Your task to perform on an android device: delete the emails in spam in the gmail app Image 0: 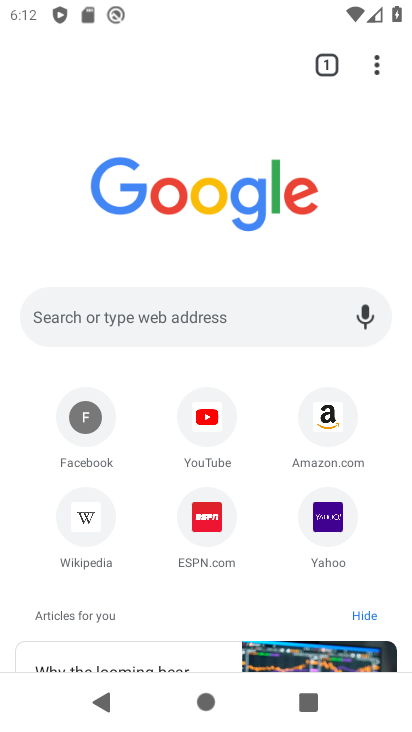
Step 0: press home button
Your task to perform on an android device: delete the emails in spam in the gmail app Image 1: 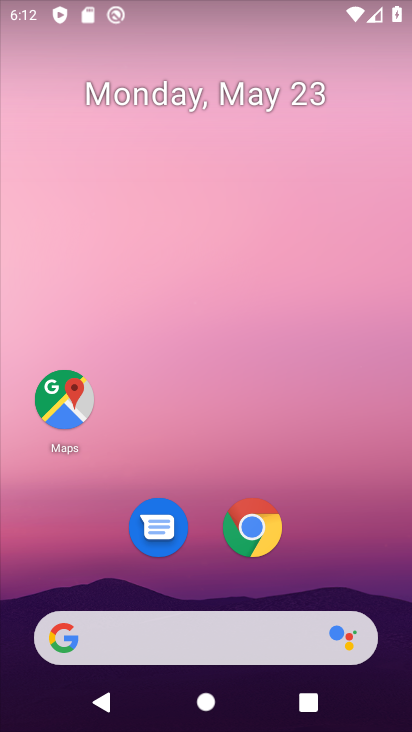
Step 1: drag from (305, 557) to (313, 105)
Your task to perform on an android device: delete the emails in spam in the gmail app Image 2: 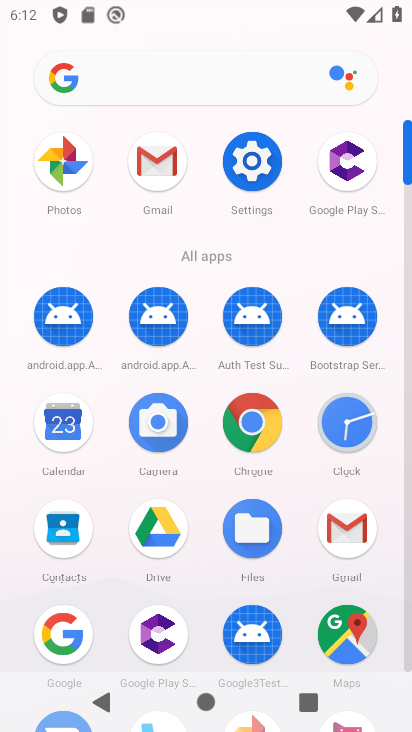
Step 2: click (168, 165)
Your task to perform on an android device: delete the emails in spam in the gmail app Image 3: 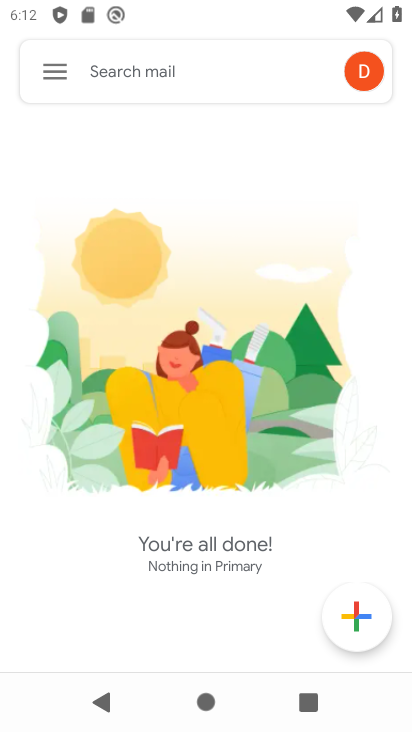
Step 3: click (54, 67)
Your task to perform on an android device: delete the emails in spam in the gmail app Image 4: 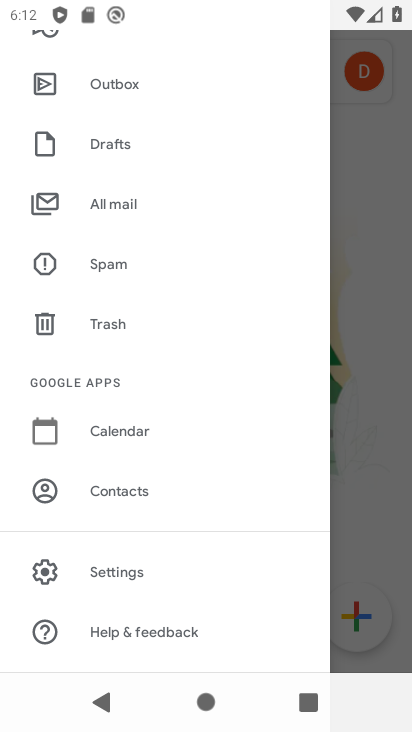
Step 4: click (110, 258)
Your task to perform on an android device: delete the emails in spam in the gmail app Image 5: 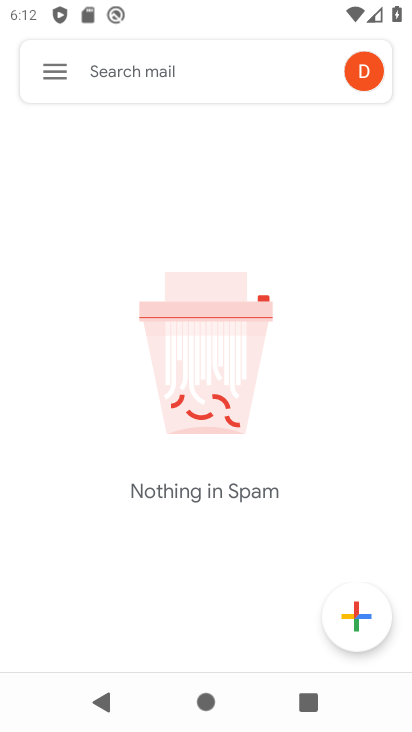
Step 5: task complete